Your task to perform on an android device: turn off data saver in the chrome app Image 0: 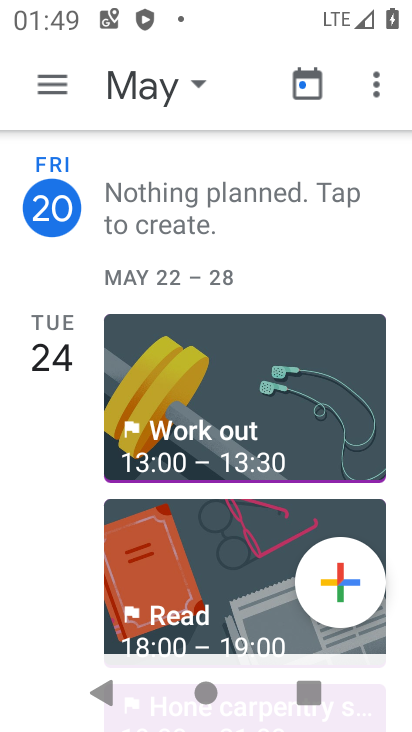
Step 0: press home button
Your task to perform on an android device: turn off data saver in the chrome app Image 1: 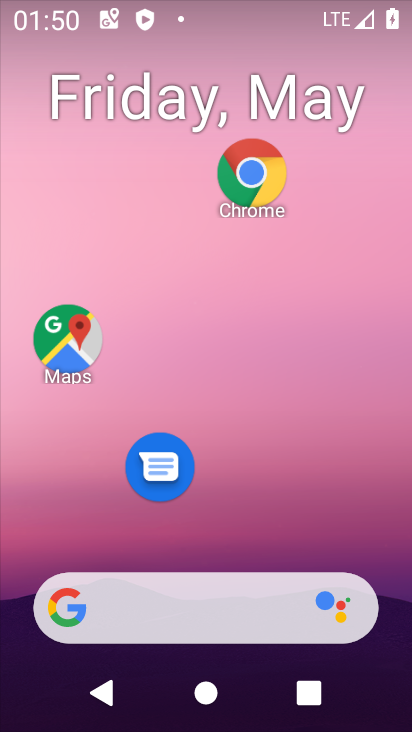
Step 1: drag from (238, 657) to (304, 175)
Your task to perform on an android device: turn off data saver in the chrome app Image 2: 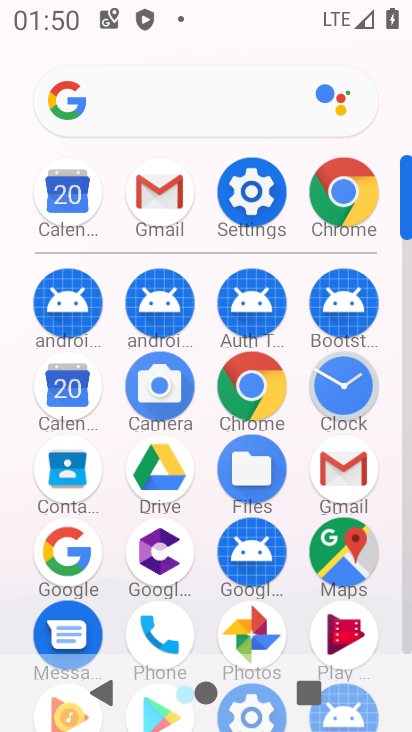
Step 2: click (348, 186)
Your task to perform on an android device: turn off data saver in the chrome app Image 3: 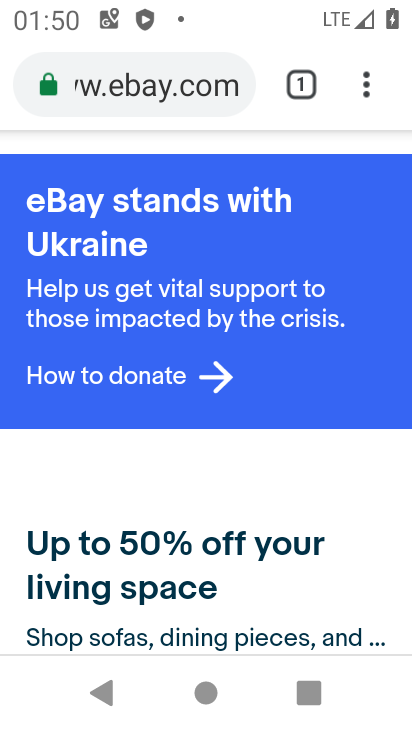
Step 3: click (370, 98)
Your task to perform on an android device: turn off data saver in the chrome app Image 4: 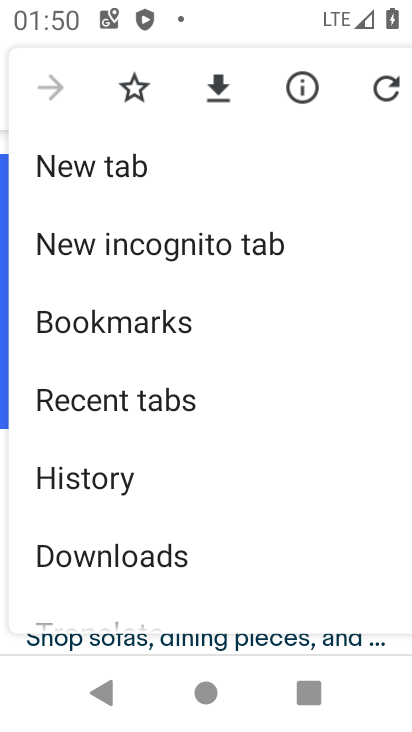
Step 4: drag from (212, 505) to (274, 220)
Your task to perform on an android device: turn off data saver in the chrome app Image 5: 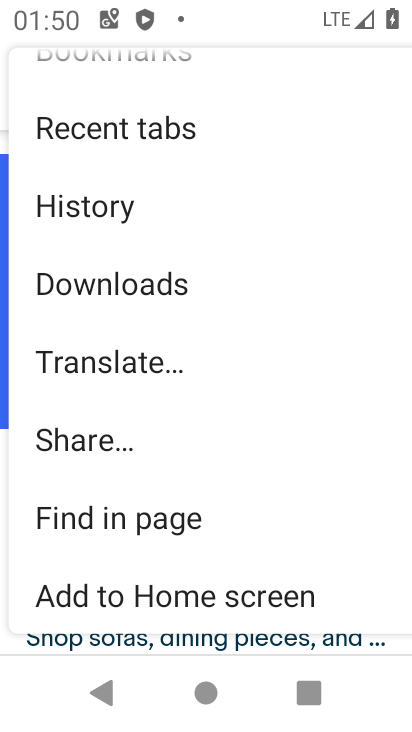
Step 5: drag from (179, 506) to (165, 170)
Your task to perform on an android device: turn off data saver in the chrome app Image 6: 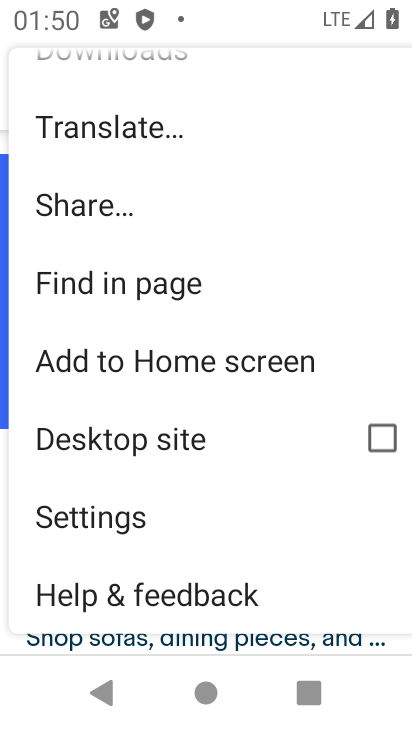
Step 6: click (125, 512)
Your task to perform on an android device: turn off data saver in the chrome app Image 7: 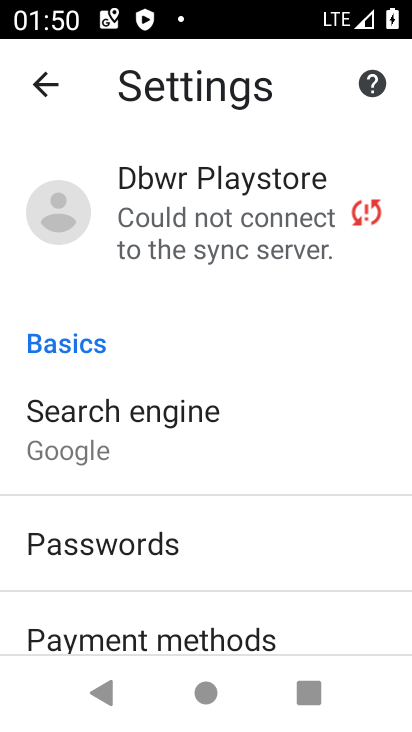
Step 7: drag from (172, 537) to (237, 226)
Your task to perform on an android device: turn off data saver in the chrome app Image 8: 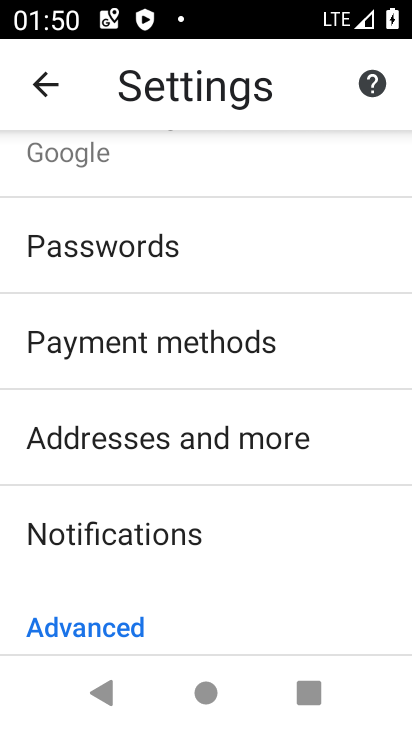
Step 8: drag from (233, 506) to (271, 193)
Your task to perform on an android device: turn off data saver in the chrome app Image 9: 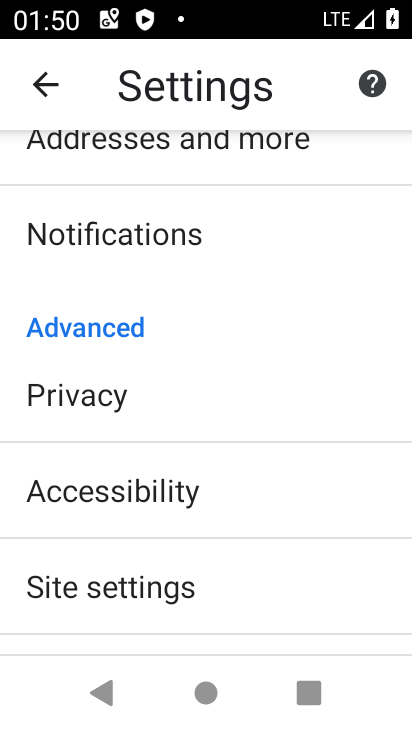
Step 9: drag from (186, 560) to (225, 290)
Your task to perform on an android device: turn off data saver in the chrome app Image 10: 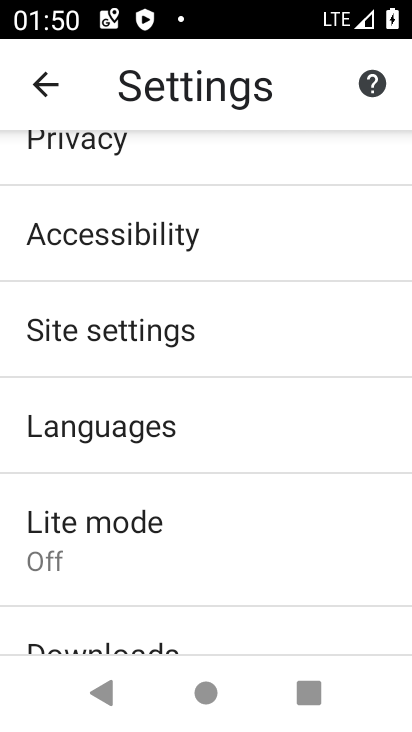
Step 10: click (160, 525)
Your task to perform on an android device: turn off data saver in the chrome app Image 11: 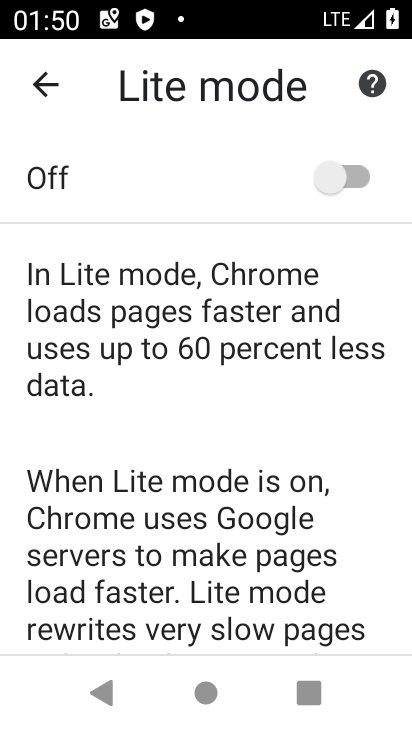
Step 11: click (348, 164)
Your task to perform on an android device: turn off data saver in the chrome app Image 12: 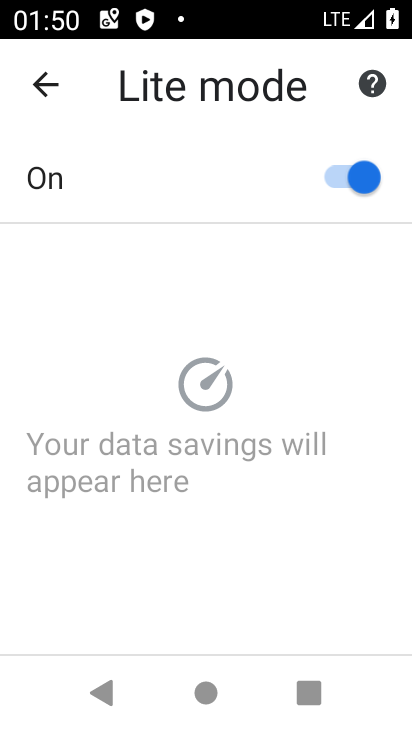
Step 12: click (348, 164)
Your task to perform on an android device: turn off data saver in the chrome app Image 13: 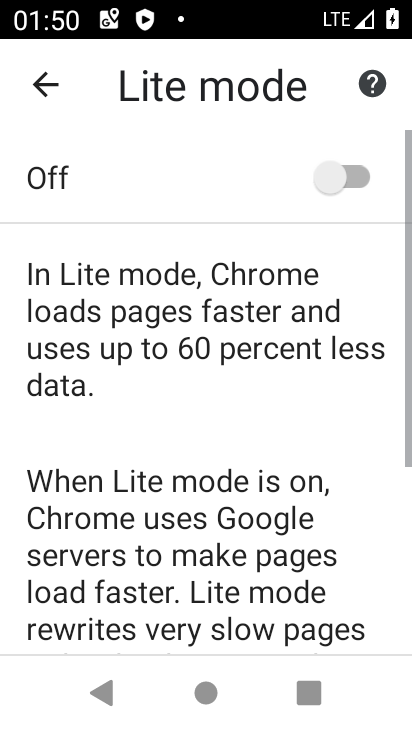
Step 13: task complete